Your task to perform on an android device: empty trash in google photos Image 0: 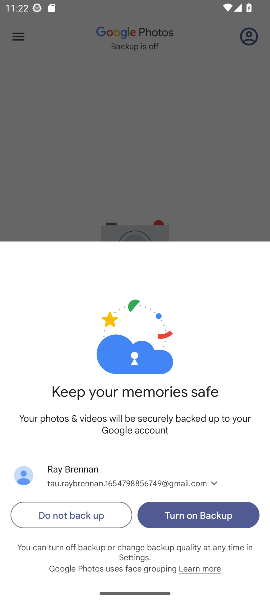
Step 0: press back button
Your task to perform on an android device: empty trash in google photos Image 1: 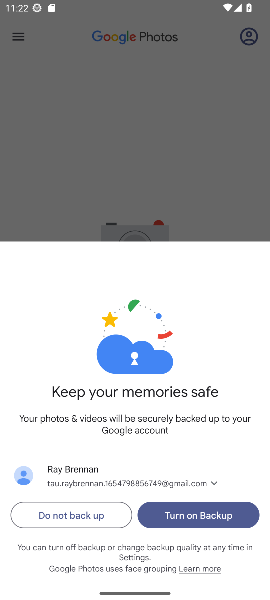
Step 1: press home button
Your task to perform on an android device: empty trash in google photos Image 2: 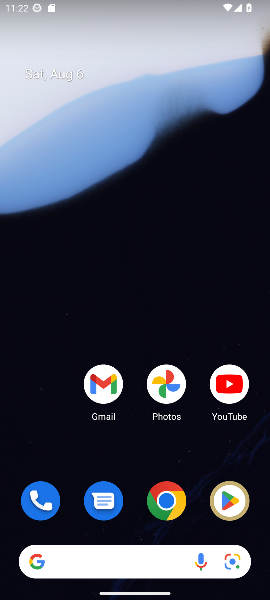
Step 2: click (164, 391)
Your task to perform on an android device: empty trash in google photos Image 3: 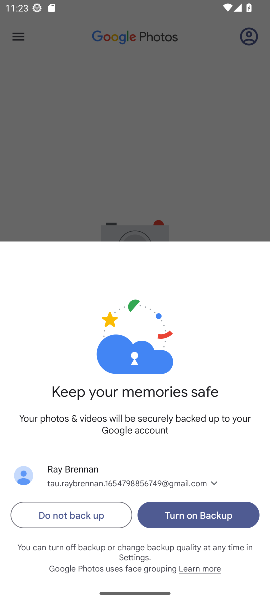
Step 3: click (164, 507)
Your task to perform on an android device: empty trash in google photos Image 4: 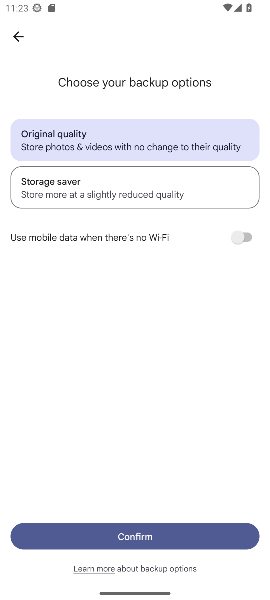
Step 4: click (127, 538)
Your task to perform on an android device: empty trash in google photos Image 5: 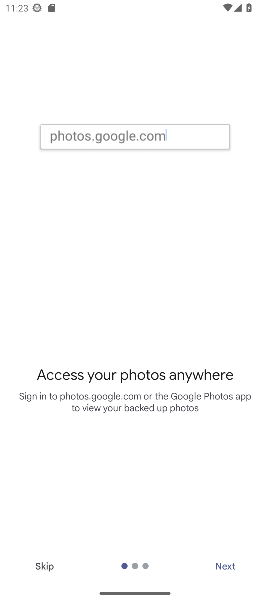
Step 5: click (209, 568)
Your task to perform on an android device: empty trash in google photos Image 6: 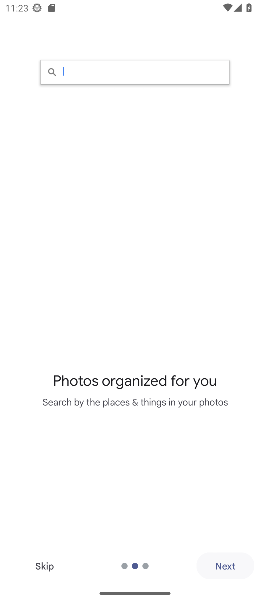
Step 6: click (221, 565)
Your task to perform on an android device: empty trash in google photos Image 7: 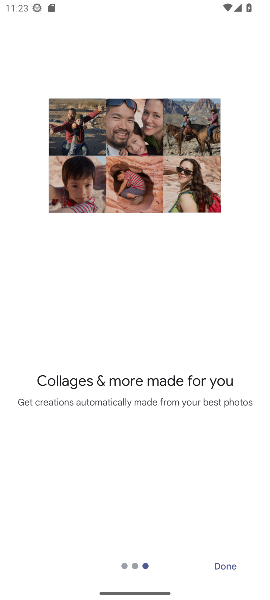
Step 7: click (221, 565)
Your task to perform on an android device: empty trash in google photos Image 8: 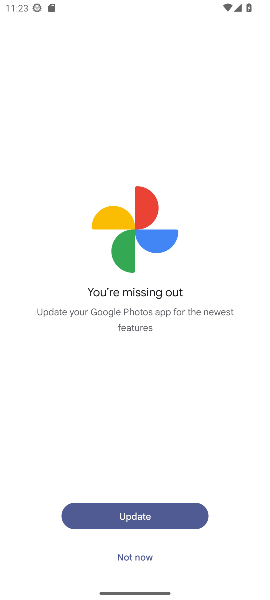
Step 8: click (134, 559)
Your task to perform on an android device: empty trash in google photos Image 9: 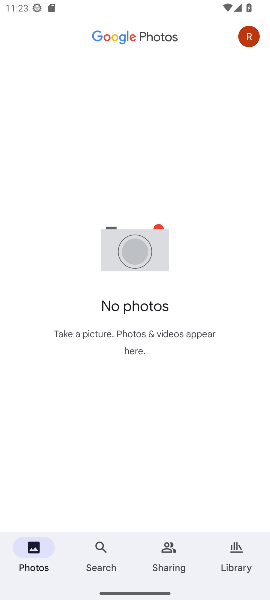
Step 9: click (233, 548)
Your task to perform on an android device: empty trash in google photos Image 10: 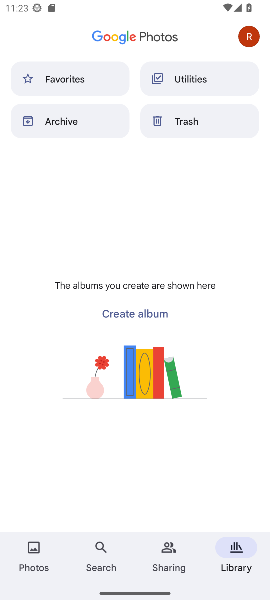
Step 10: click (196, 113)
Your task to perform on an android device: empty trash in google photos Image 11: 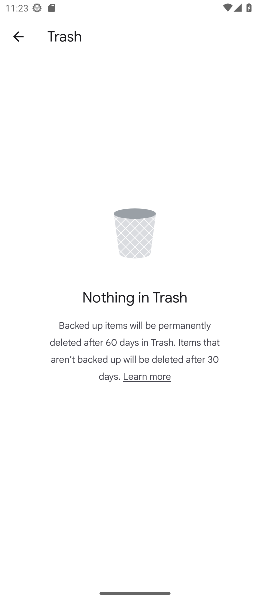
Step 11: task complete